Your task to perform on an android device: change the clock style Image 0: 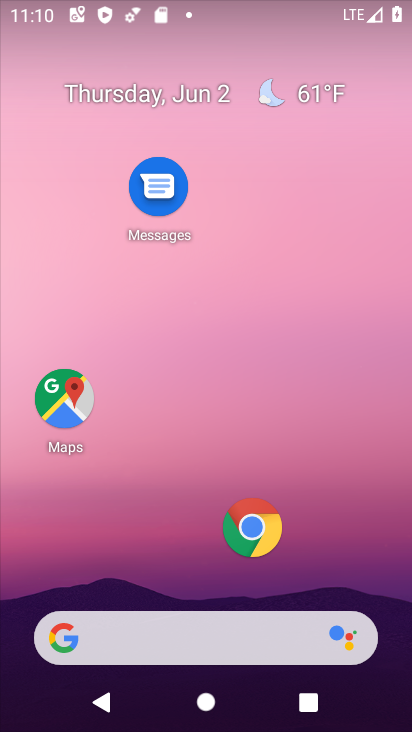
Step 0: drag from (209, 587) to (267, 38)
Your task to perform on an android device: change the clock style Image 1: 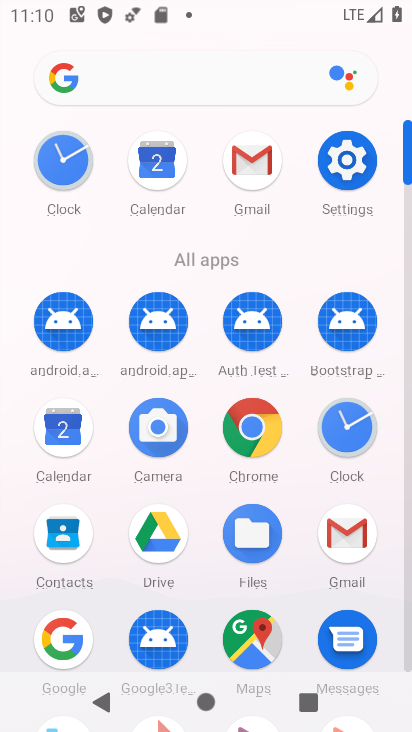
Step 1: click (347, 414)
Your task to perform on an android device: change the clock style Image 2: 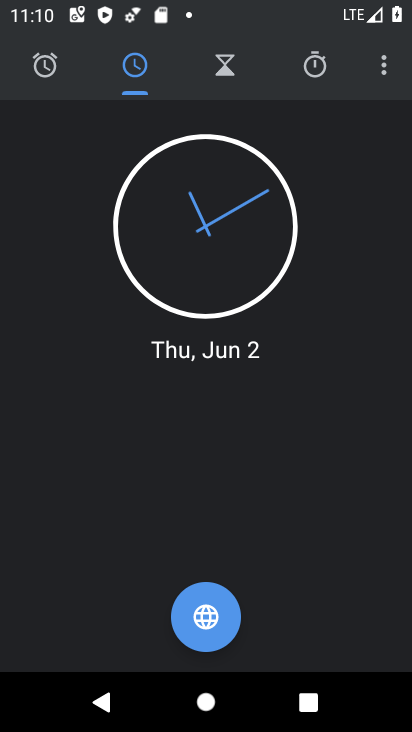
Step 2: click (380, 58)
Your task to perform on an android device: change the clock style Image 3: 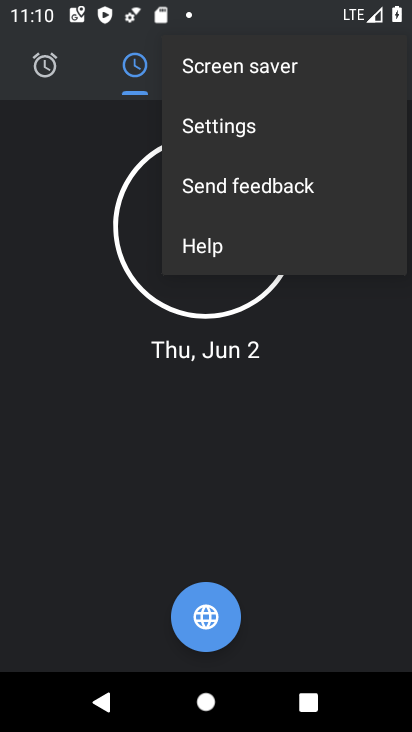
Step 3: click (263, 123)
Your task to perform on an android device: change the clock style Image 4: 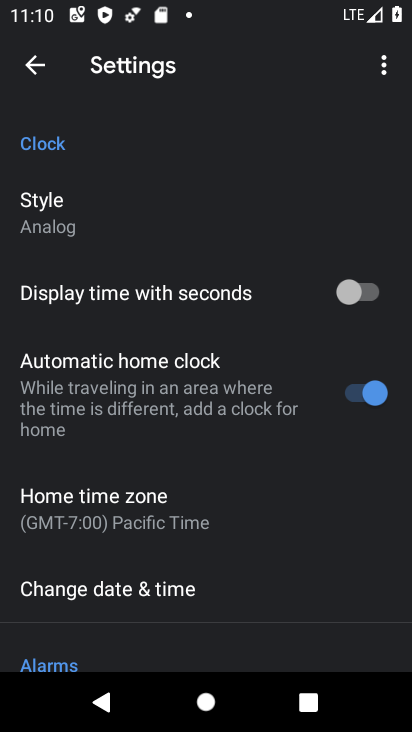
Step 4: click (100, 215)
Your task to perform on an android device: change the clock style Image 5: 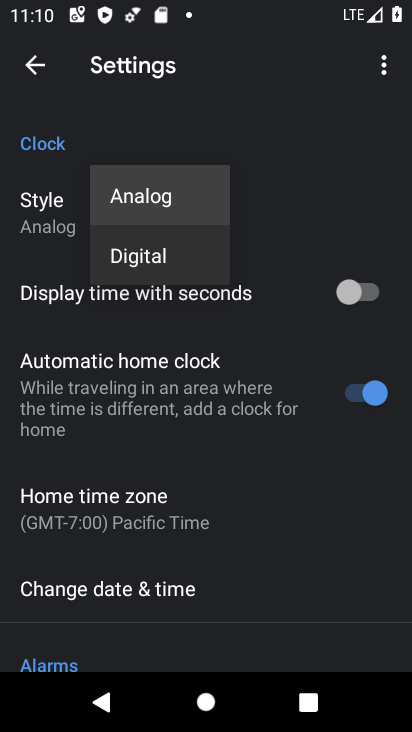
Step 5: click (179, 253)
Your task to perform on an android device: change the clock style Image 6: 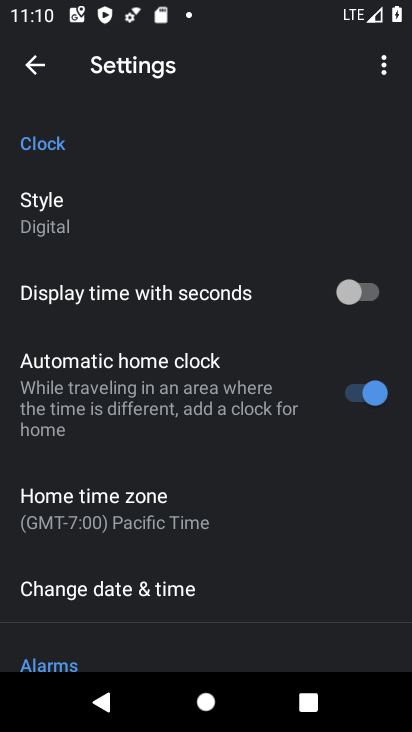
Step 6: task complete